Your task to perform on an android device: Search for vegetarian restaurants on Maps Image 0: 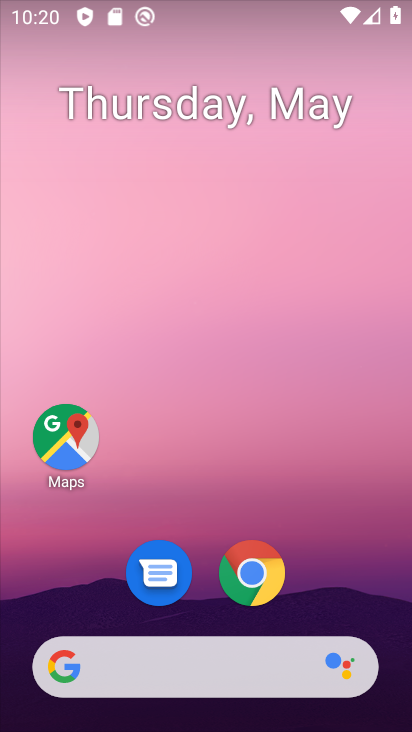
Step 0: drag from (371, 611) to (361, 109)
Your task to perform on an android device: Search for vegetarian restaurants on Maps Image 1: 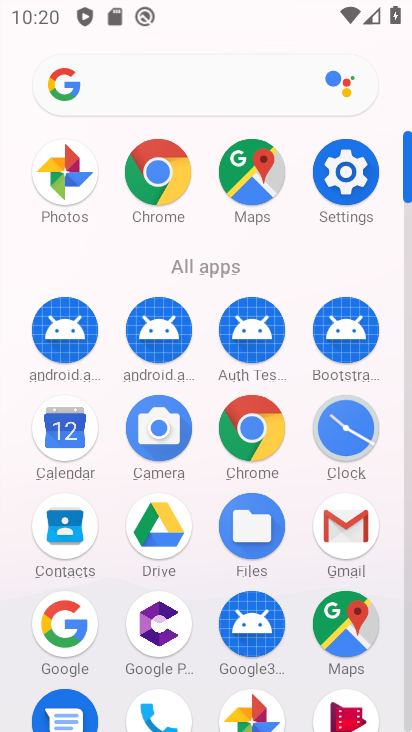
Step 1: click (353, 632)
Your task to perform on an android device: Search for vegetarian restaurants on Maps Image 2: 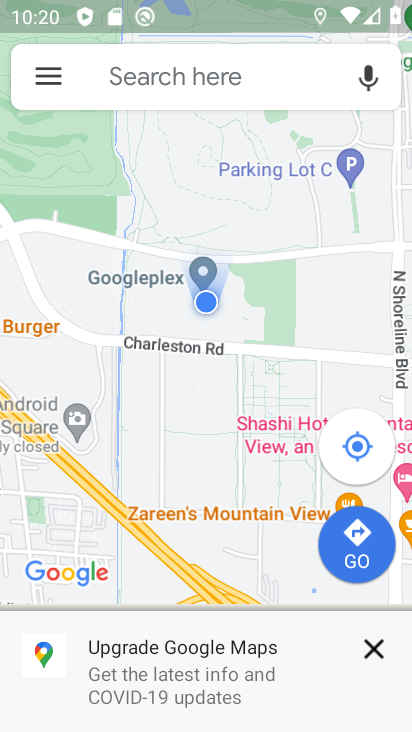
Step 2: click (229, 85)
Your task to perform on an android device: Search for vegetarian restaurants on Maps Image 3: 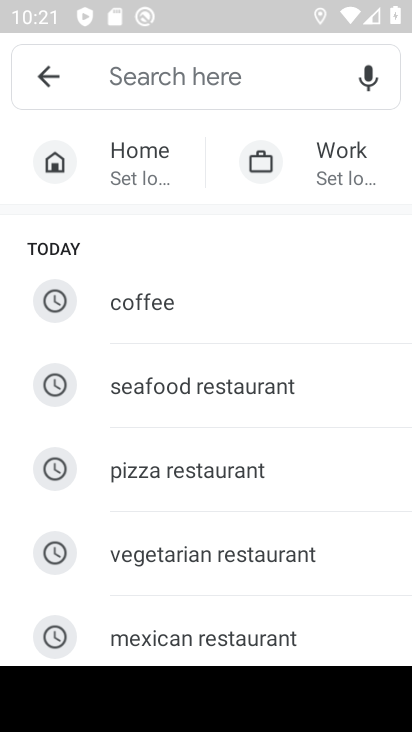
Step 3: type "vegetarian restaurants "
Your task to perform on an android device: Search for vegetarian restaurants on Maps Image 4: 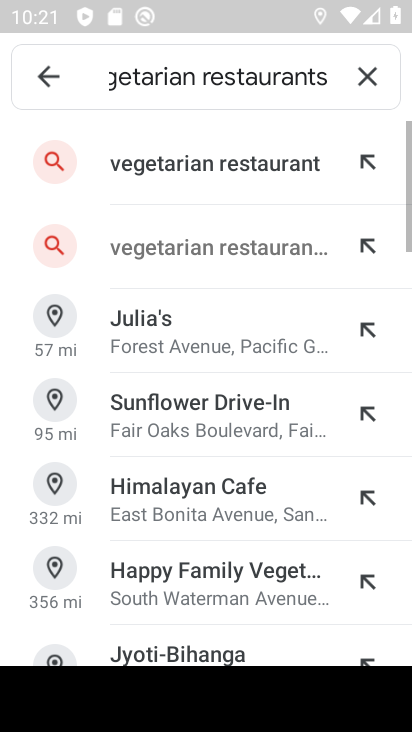
Step 4: click (182, 169)
Your task to perform on an android device: Search for vegetarian restaurants on Maps Image 5: 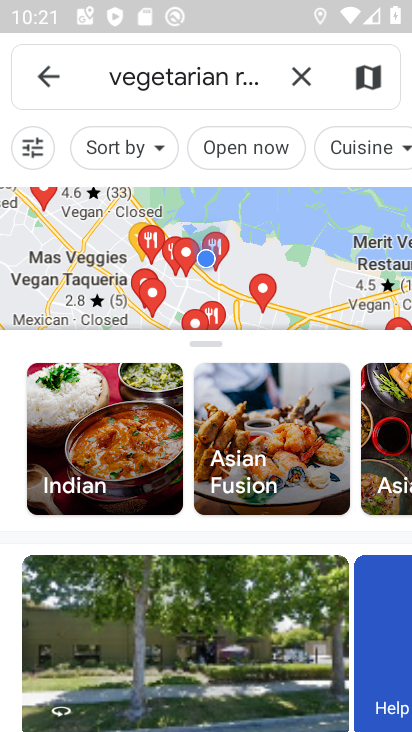
Step 5: task complete